Your task to perform on an android device: turn on the 24-hour format for clock Image 0: 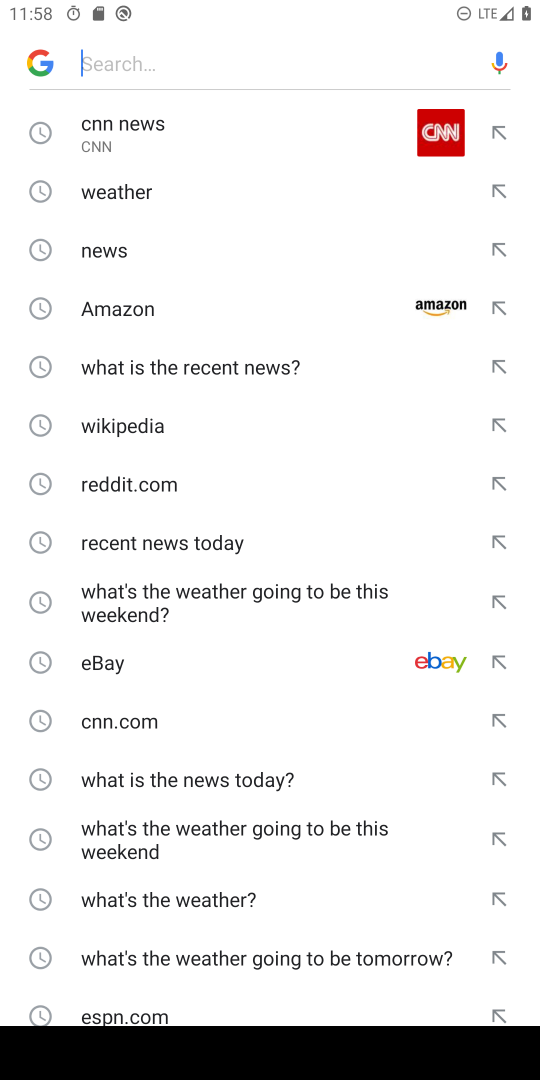
Step 0: press home button
Your task to perform on an android device: turn on the 24-hour format for clock Image 1: 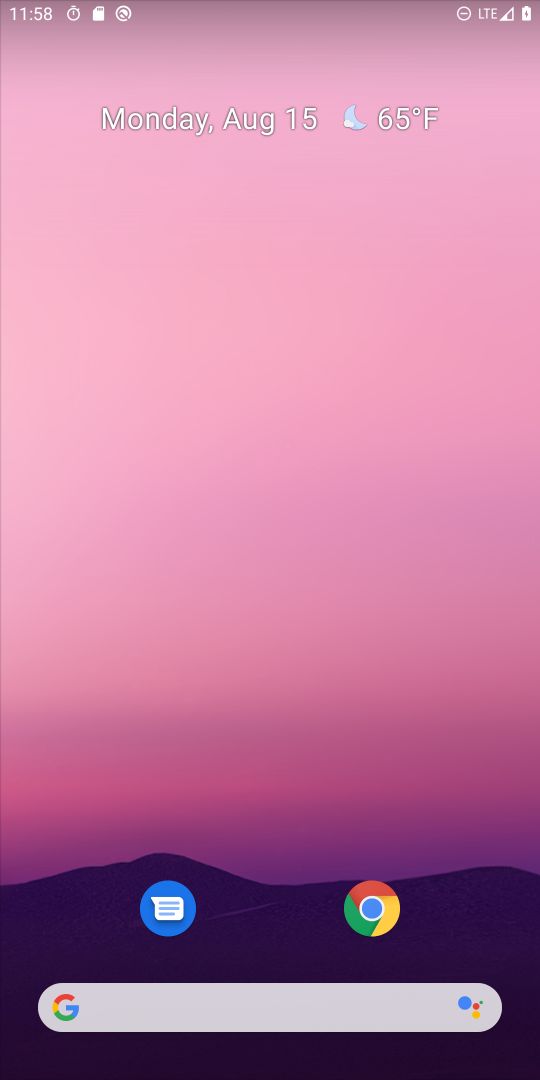
Step 1: drag from (283, 929) to (318, 230)
Your task to perform on an android device: turn on the 24-hour format for clock Image 2: 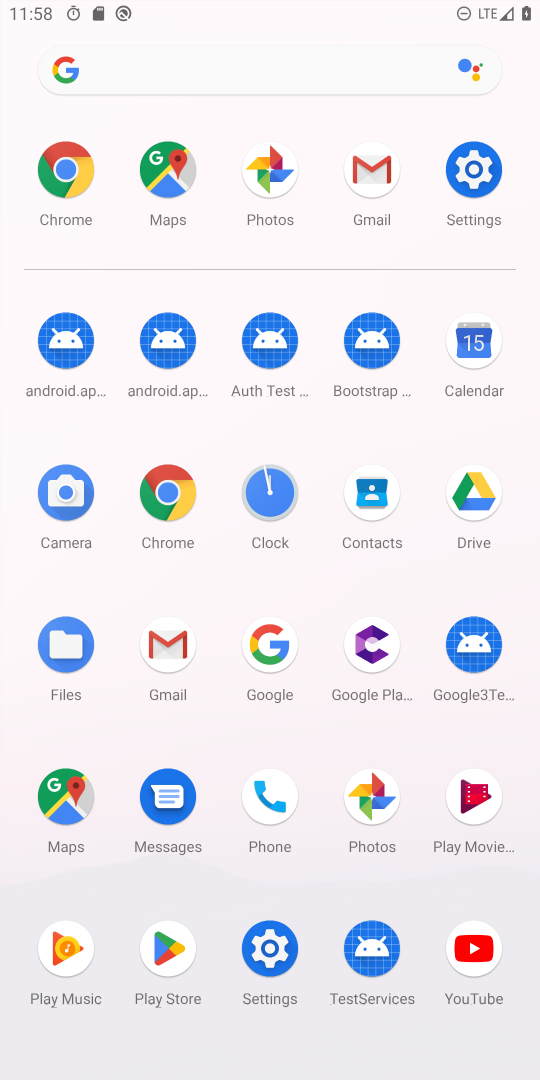
Step 2: click (276, 477)
Your task to perform on an android device: turn on the 24-hour format for clock Image 3: 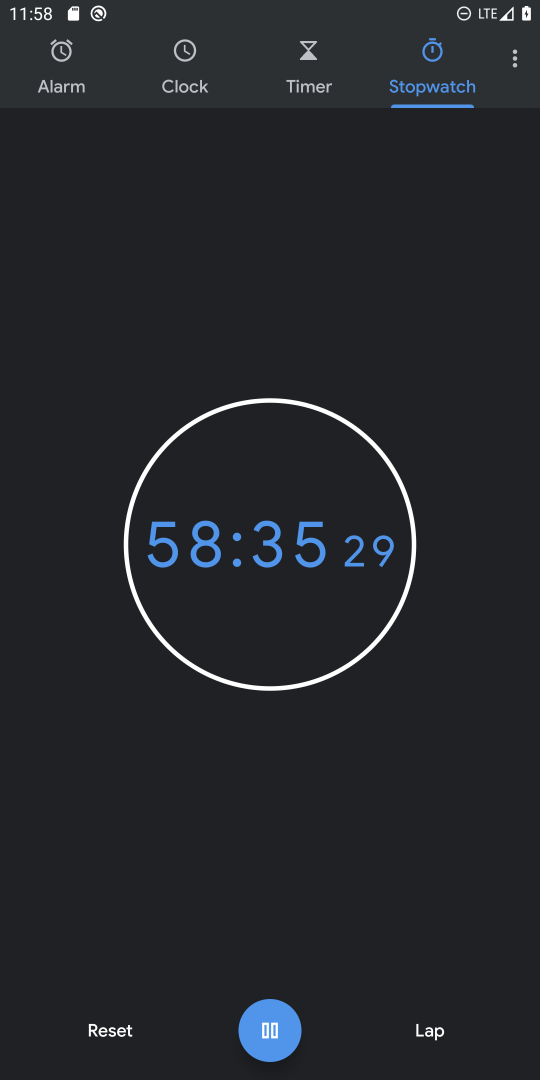
Step 3: click (519, 51)
Your task to perform on an android device: turn on the 24-hour format for clock Image 4: 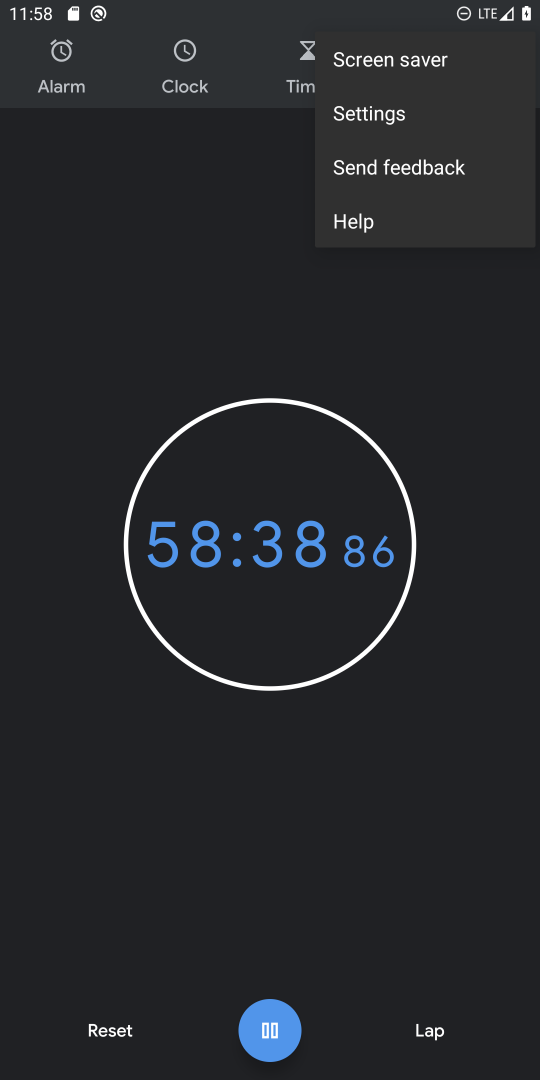
Step 4: click (388, 115)
Your task to perform on an android device: turn on the 24-hour format for clock Image 5: 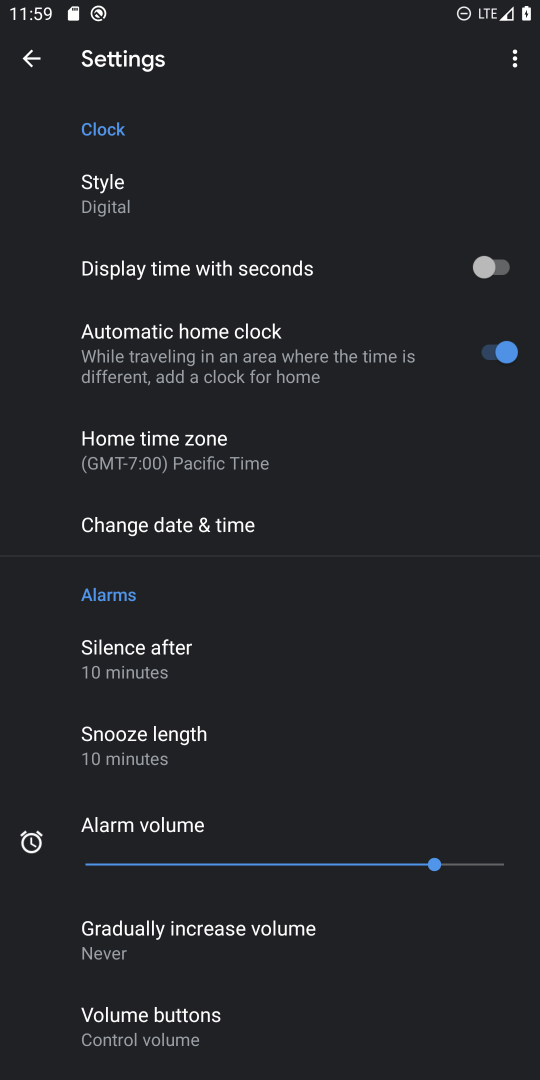
Step 5: click (193, 509)
Your task to perform on an android device: turn on the 24-hour format for clock Image 6: 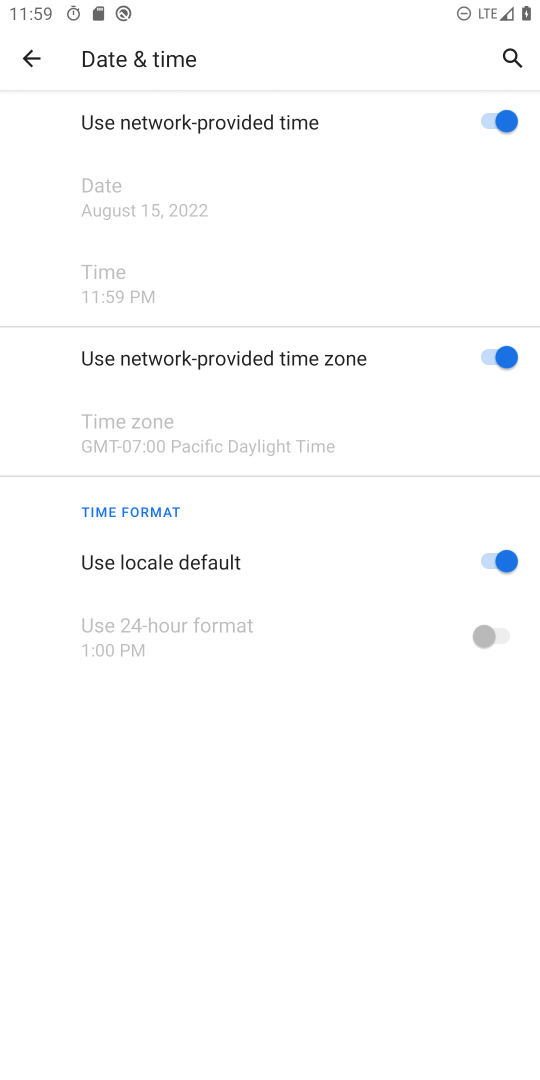
Step 6: click (501, 562)
Your task to perform on an android device: turn on the 24-hour format for clock Image 7: 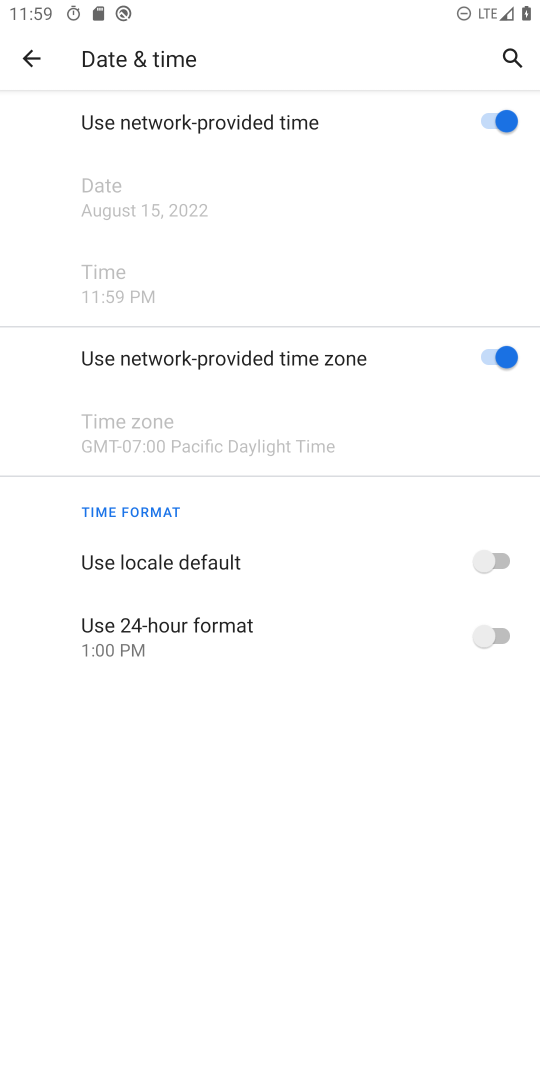
Step 7: click (502, 639)
Your task to perform on an android device: turn on the 24-hour format for clock Image 8: 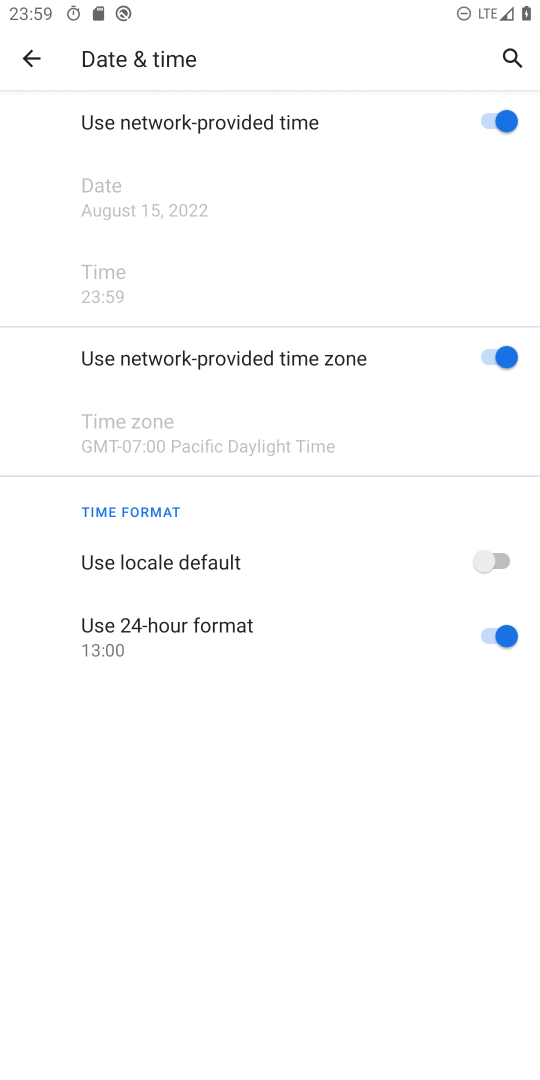
Step 8: task complete